Your task to perform on an android device: turn on airplane mode Image 0: 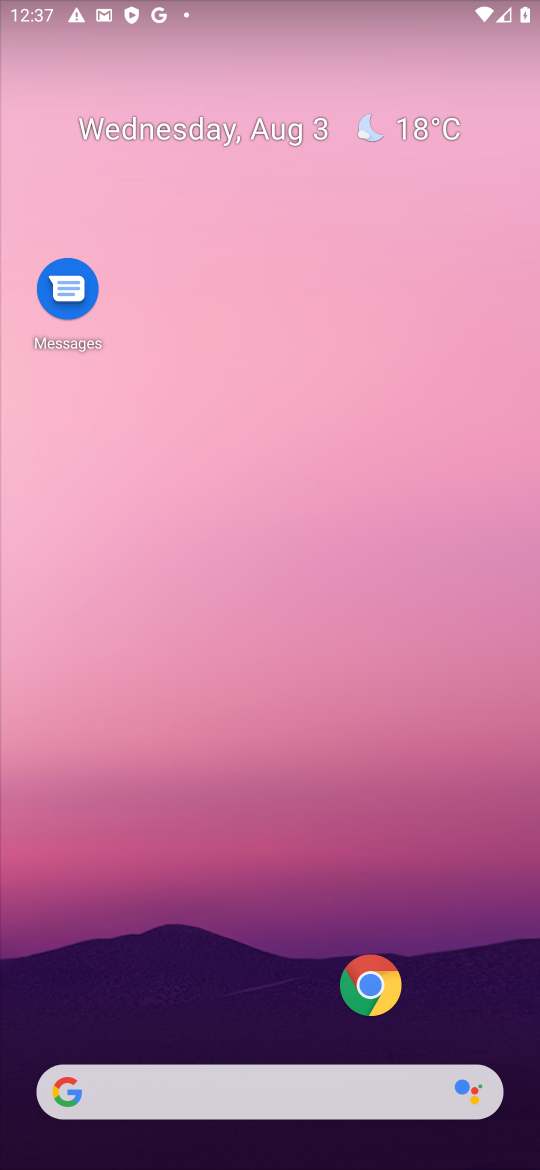
Step 0: drag from (192, 1015) to (226, 125)
Your task to perform on an android device: turn on airplane mode Image 1: 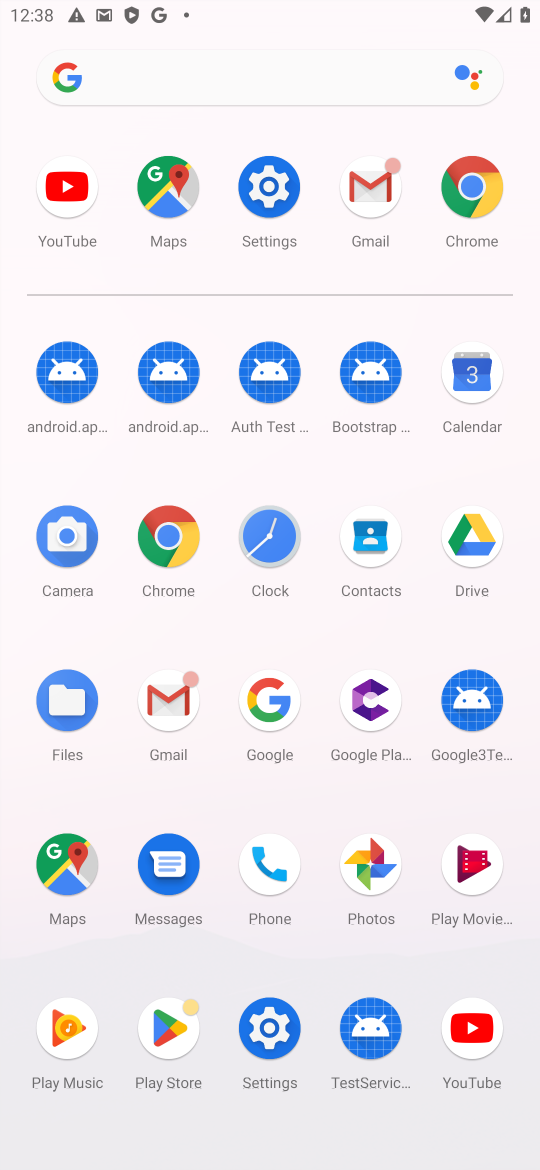
Step 1: click (292, 215)
Your task to perform on an android device: turn on airplane mode Image 2: 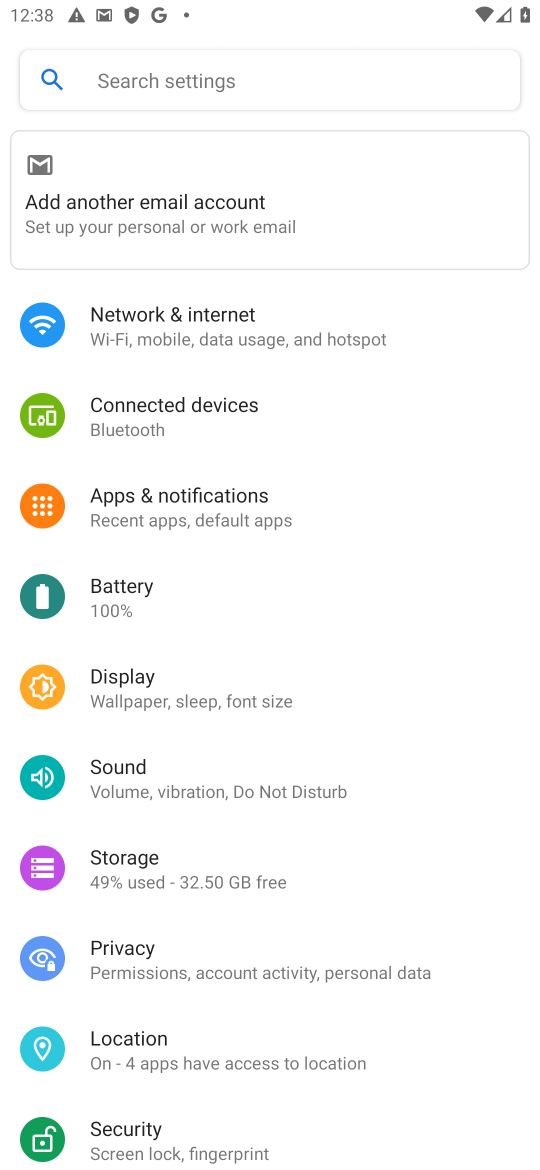
Step 2: click (336, 313)
Your task to perform on an android device: turn on airplane mode Image 3: 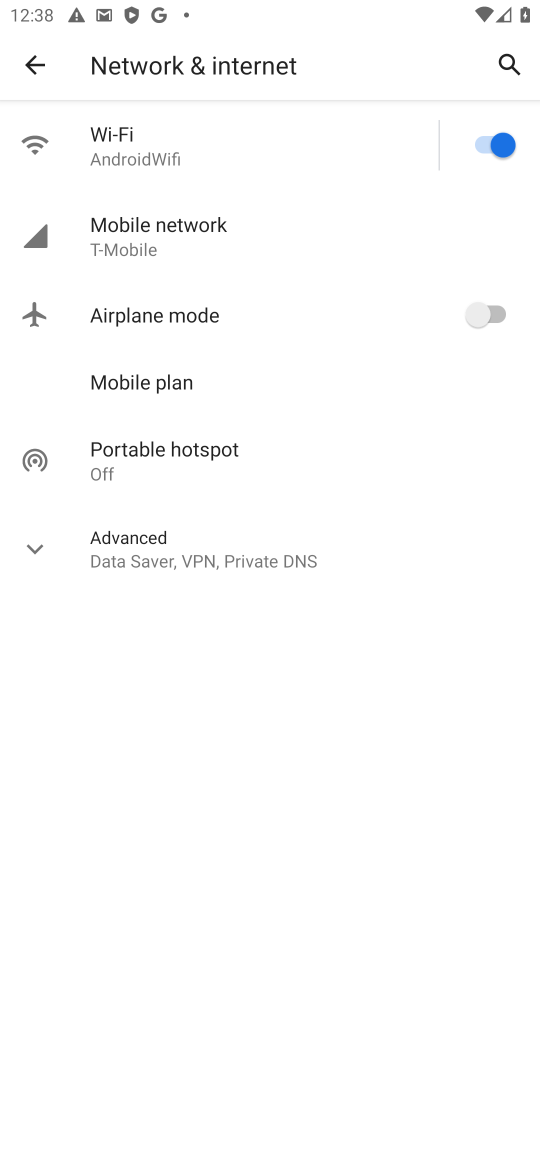
Step 3: click (498, 284)
Your task to perform on an android device: turn on airplane mode Image 4: 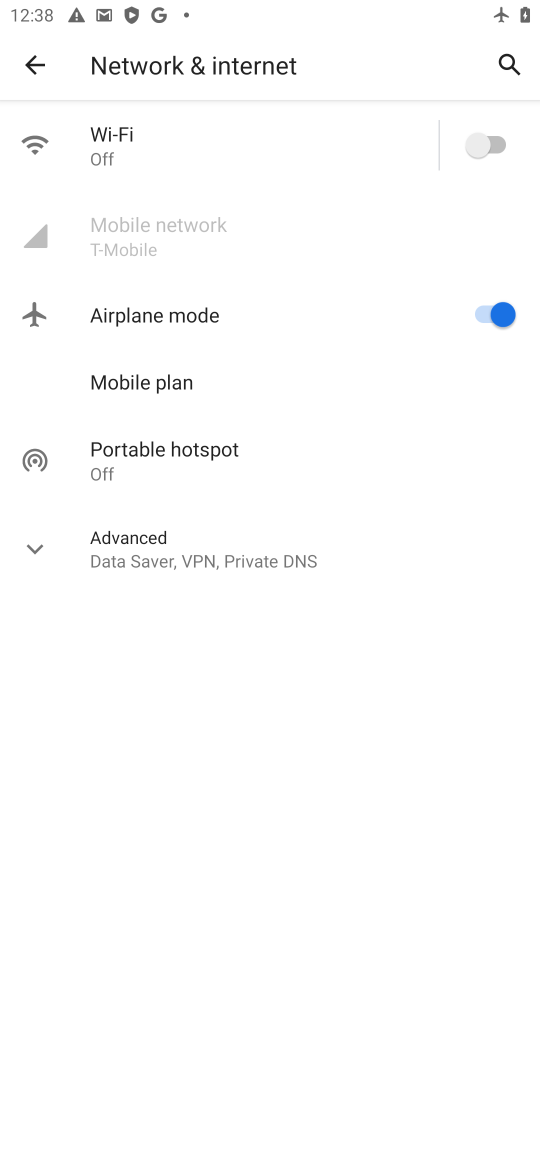
Step 4: click (495, 158)
Your task to perform on an android device: turn on airplane mode Image 5: 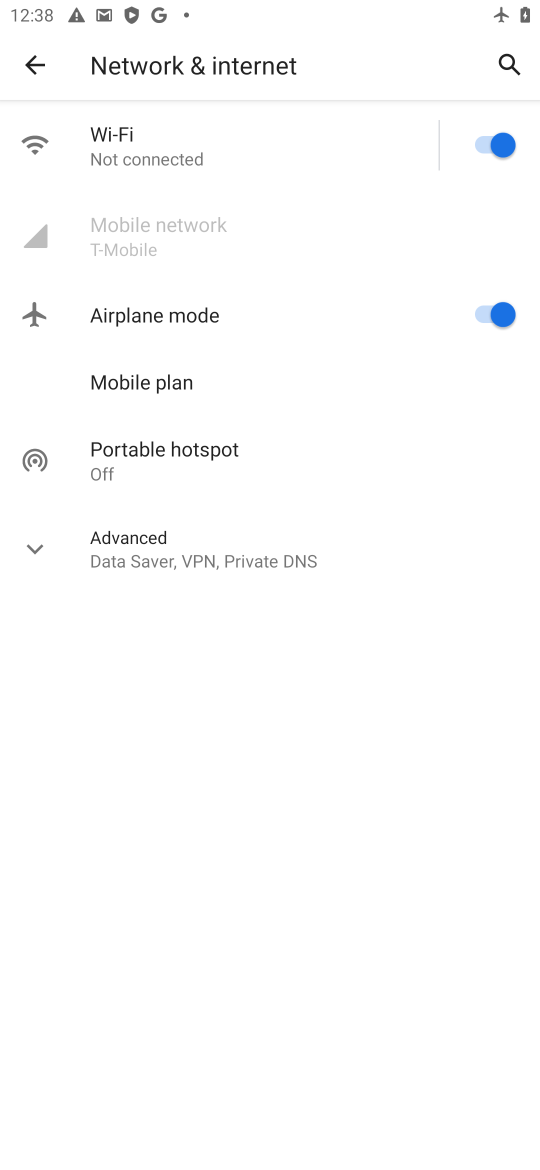
Step 5: task complete